Your task to perform on an android device: change notification settings in the gmail app Image 0: 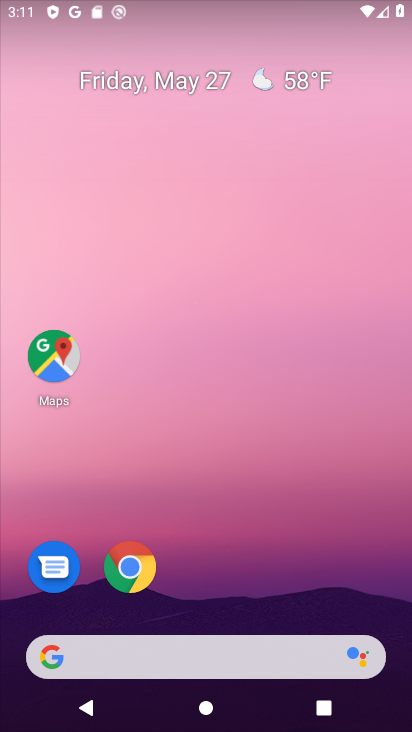
Step 0: drag from (224, 617) to (237, 15)
Your task to perform on an android device: change notification settings in the gmail app Image 1: 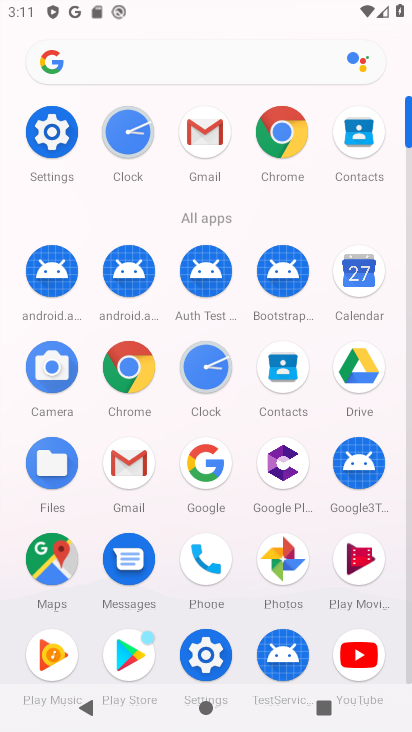
Step 1: click (203, 128)
Your task to perform on an android device: change notification settings in the gmail app Image 2: 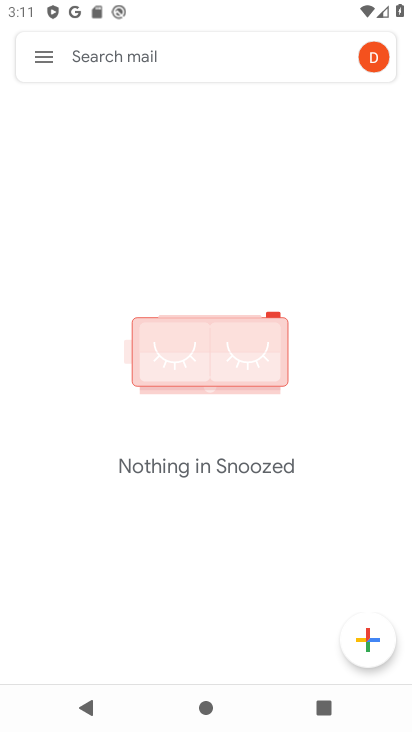
Step 2: click (42, 49)
Your task to perform on an android device: change notification settings in the gmail app Image 3: 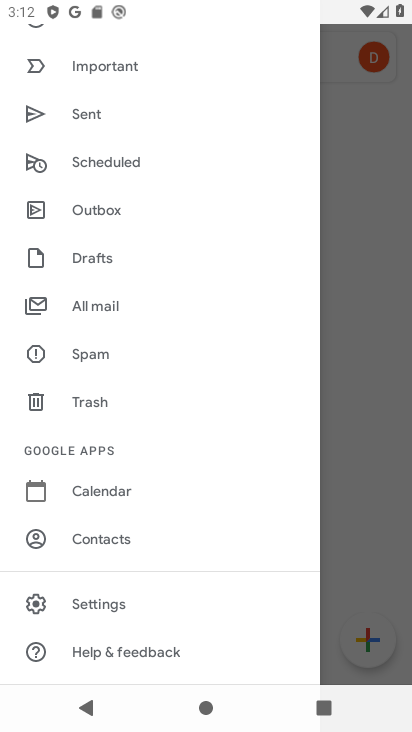
Step 3: click (134, 597)
Your task to perform on an android device: change notification settings in the gmail app Image 4: 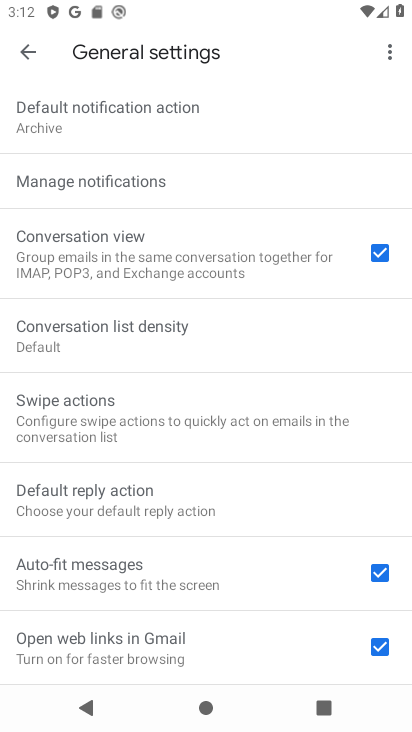
Step 4: click (168, 174)
Your task to perform on an android device: change notification settings in the gmail app Image 5: 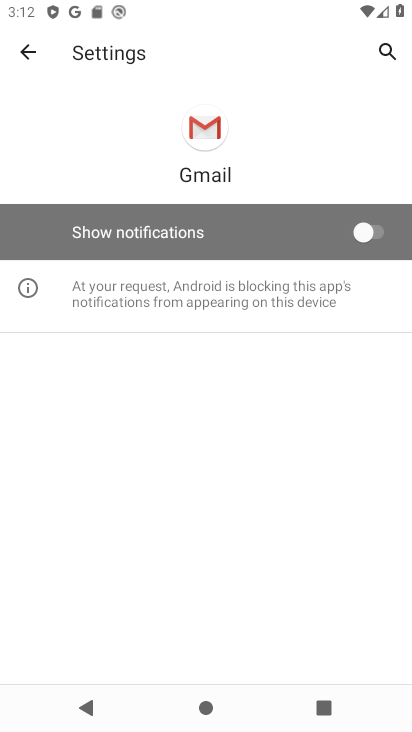
Step 5: click (377, 229)
Your task to perform on an android device: change notification settings in the gmail app Image 6: 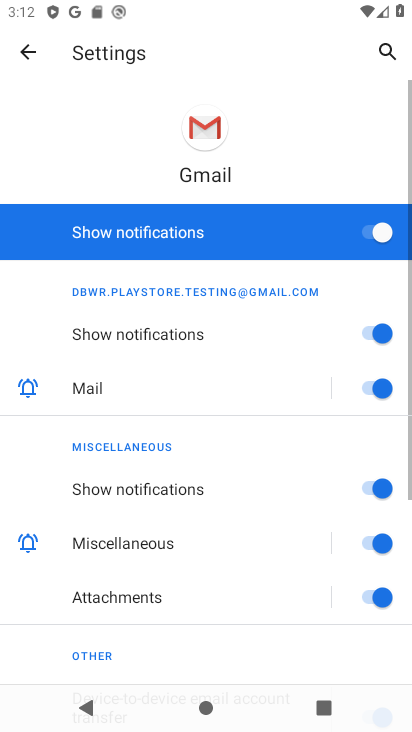
Step 6: task complete